Your task to perform on an android device: Show the shopping cart on bestbuy. Add alienware area 51 to the cart on bestbuy, then select checkout. Image 0: 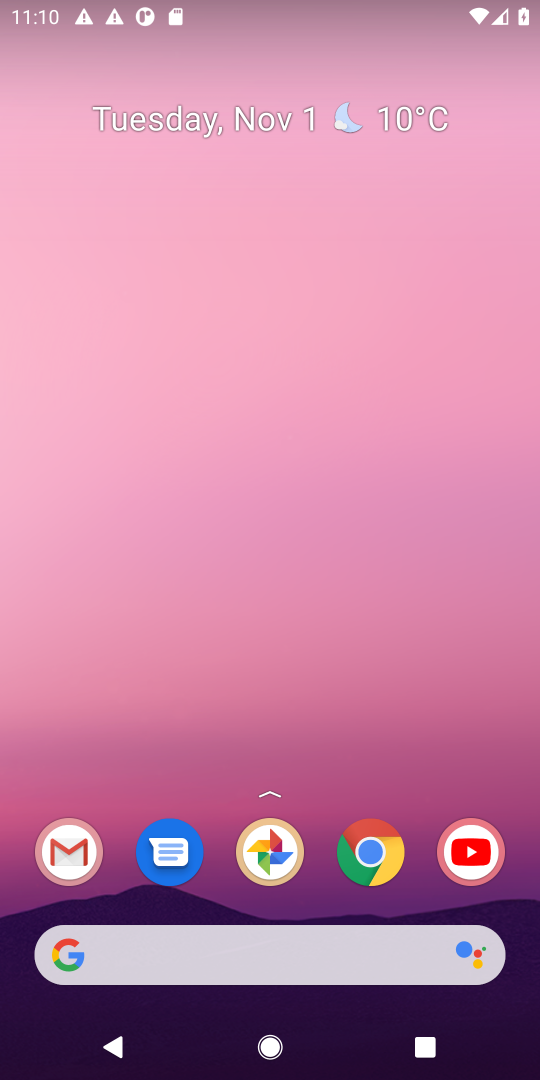
Step 0: click (71, 960)
Your task to perform on an android device: Show the shopping cart on bestbuy. Add alienware area 51 to the cart on bestbuy, then select checkout. Image 1: 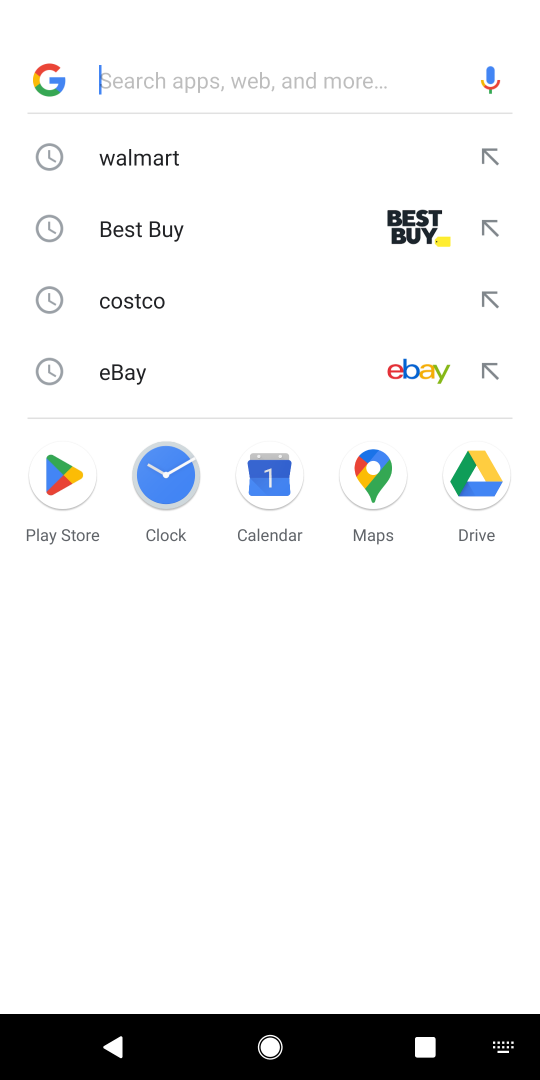
Step 1: click (161, 223)
Your task to perform on an android device: Show the shopping cart on bestbuy. Add alienware area 51 to the cart on bestbuy, then select checkout. Image 2: 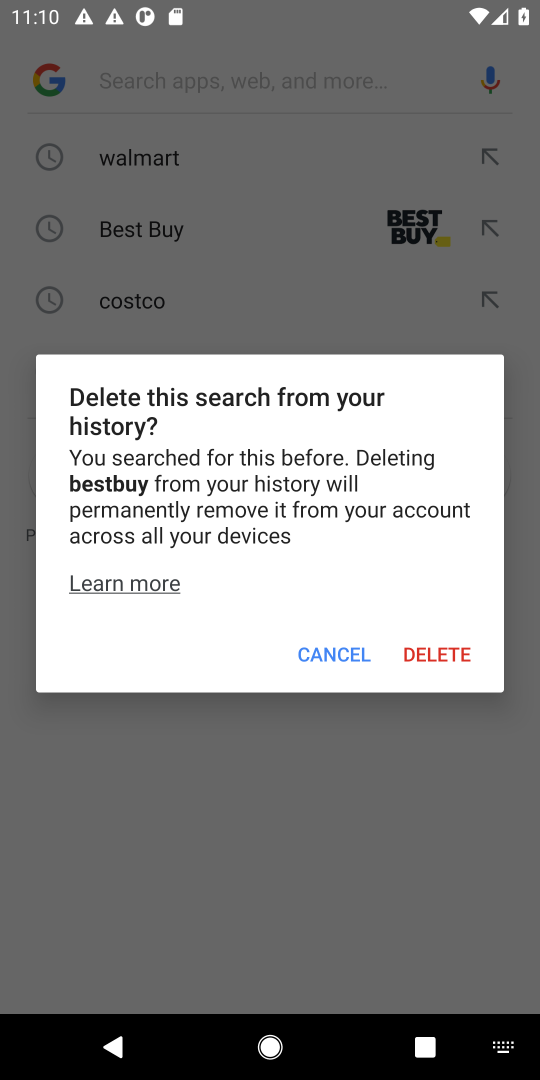
Step 2: click (132, 229)
Your task to perform on an android device: Show the shopping cart on bestbuy. Add alienware area 51 to the cart on bestbuy, then select checkout. Image 3: 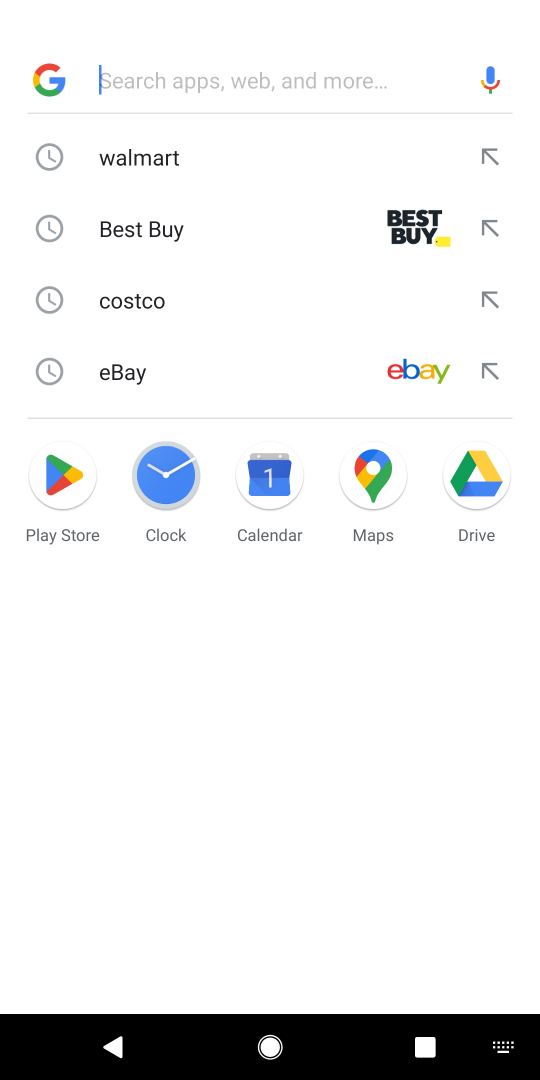
Step 3: click (121, 225)
Your task to perform on an android device: Show the shopping cart on bestbuy. Add alienware area 51 to the cart on bestbuy, then select checkout. Image 4: 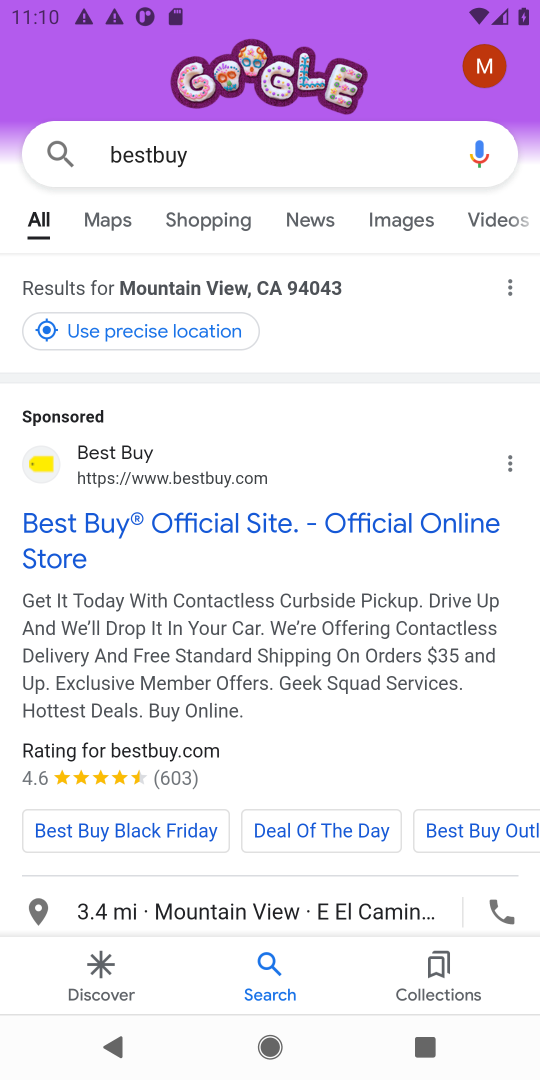
Step 4: drag from (291, 767) to (303, 420)
Your task to perform on an android device: Show the shopping cart on bestbuy. Add alienware area 51 to the cart on bestbuy, then select checkout. Image 5: 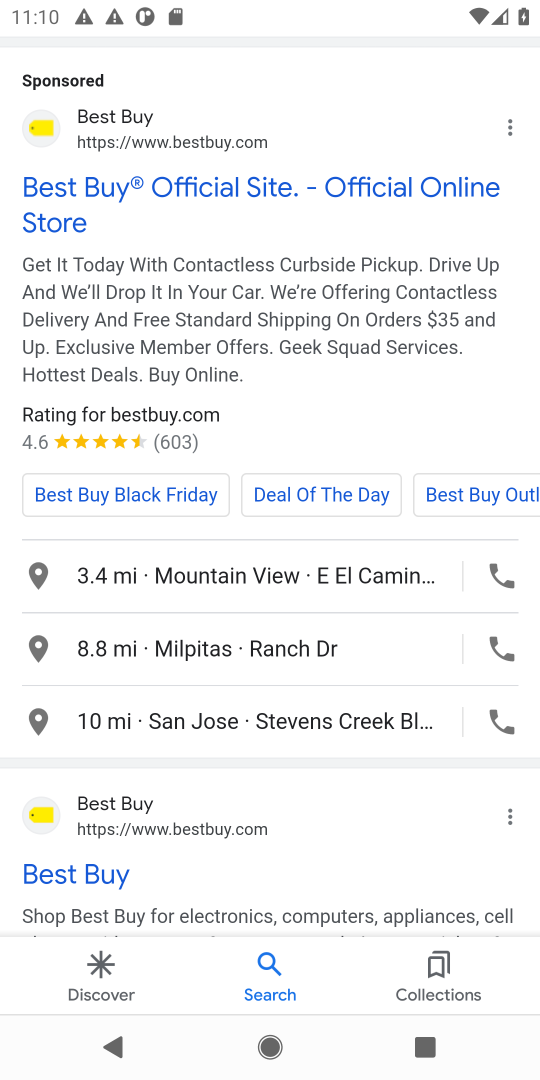
Step 5: click (87, 876)
Your task to perform on an android device: Show the shopping cart on bestbuy. Add alienware area 51 to the cart on bestbuy, then select checkout. Image 6: 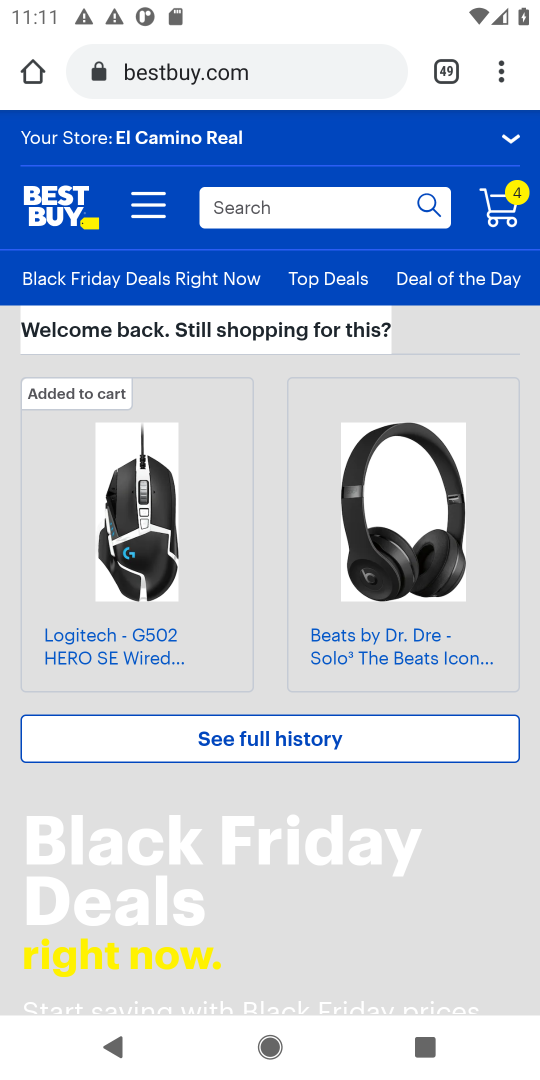
Step 6: click (236, 209)
Your task to perform on an android device: Show the shopping cart on bestbuy. Add alienware area 51 to the cart on bestbuy, then select checkout. Image 7: 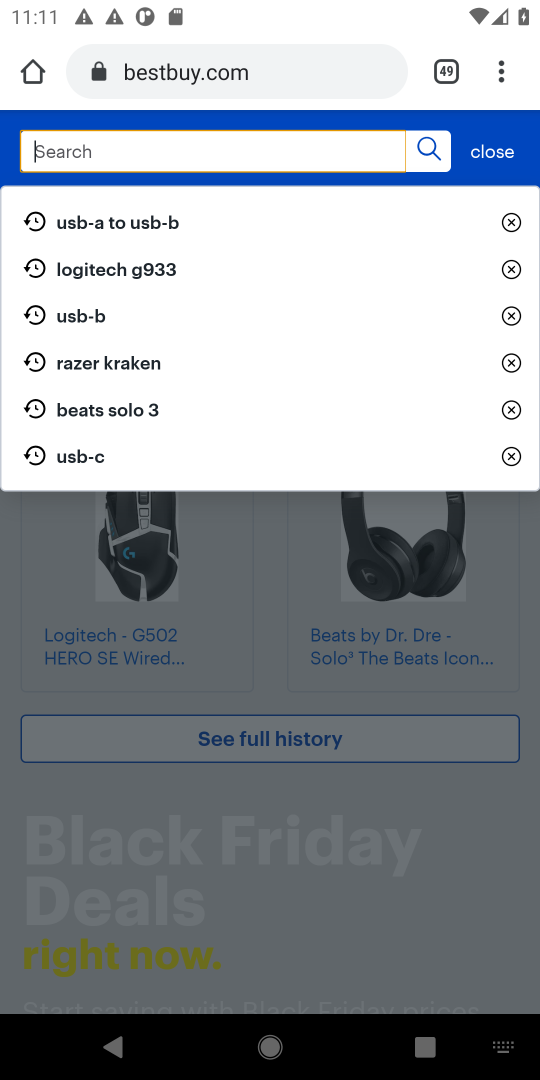
Step 7: type "alienware area 51"
Your task to perform on an android device: Show the shopping cart on bestbuy. Add alienware area 51 to the cart on bestbuy, then select checkout. Image 8: 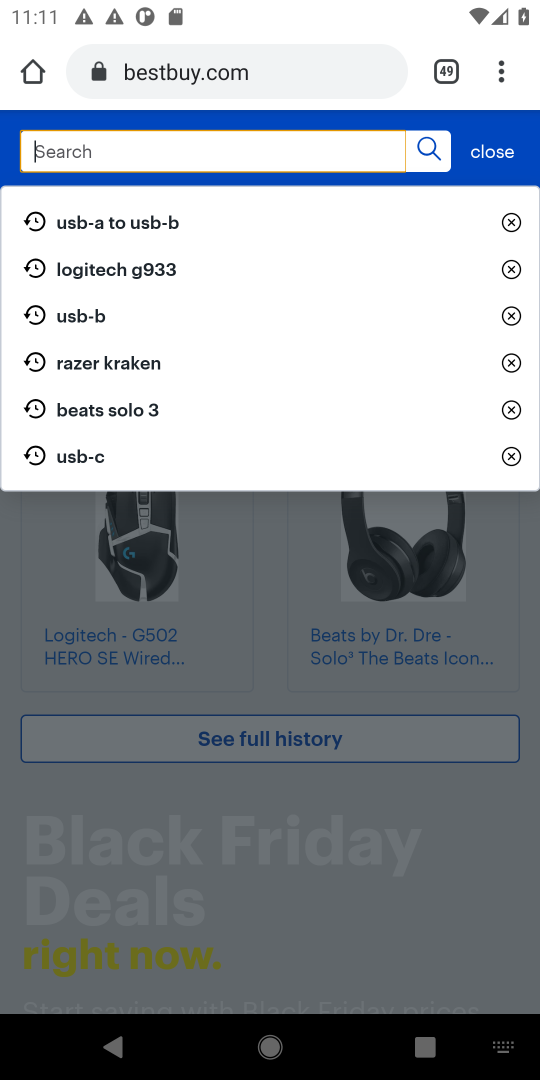
Step 8: click (86, 147)
Your task to perform on an android device: Show the shopping cart on bestbuy. Add alienware area 51 to the cart on bestbuy, then select checkout. Image 9: 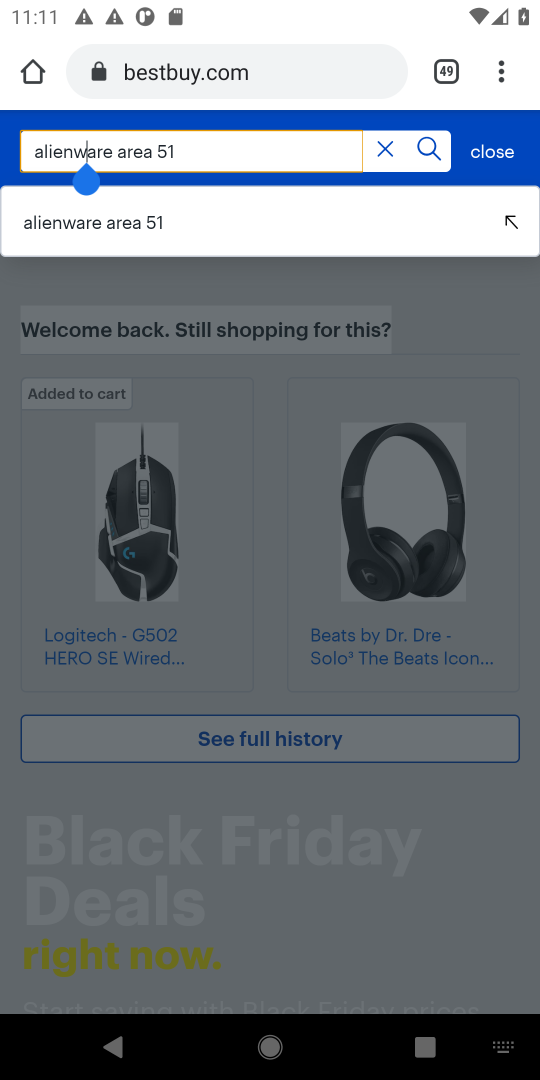
Step 9: press enter
Your task to perform on an android device: Show the shopping cart on bestbuy. Add alienware area 51 to the cart on bestbuy, then select checkout. Image 10: 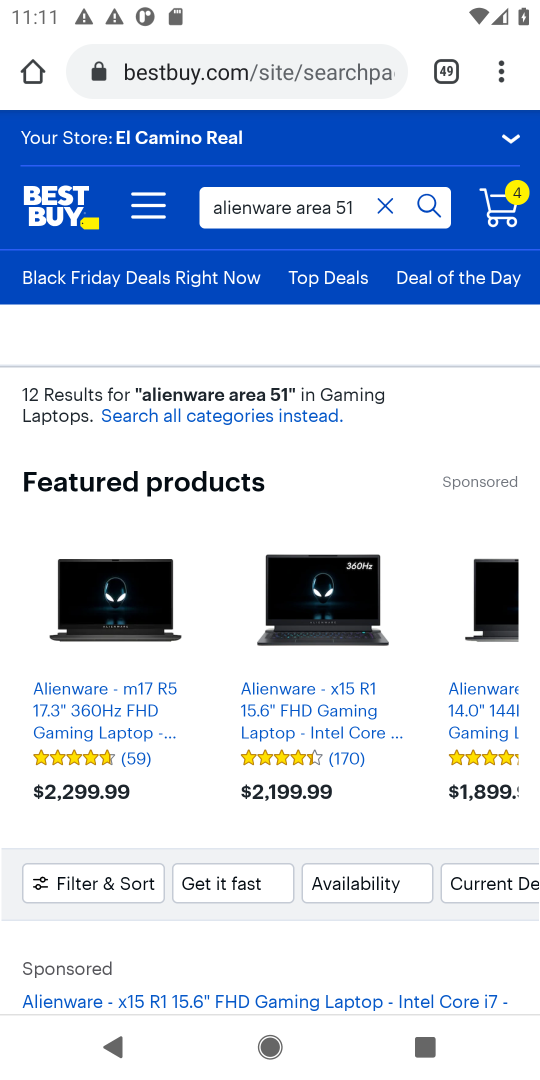
Step 10: task complete